Your task to perform on an android device: open sync settings in chrome Image 0: 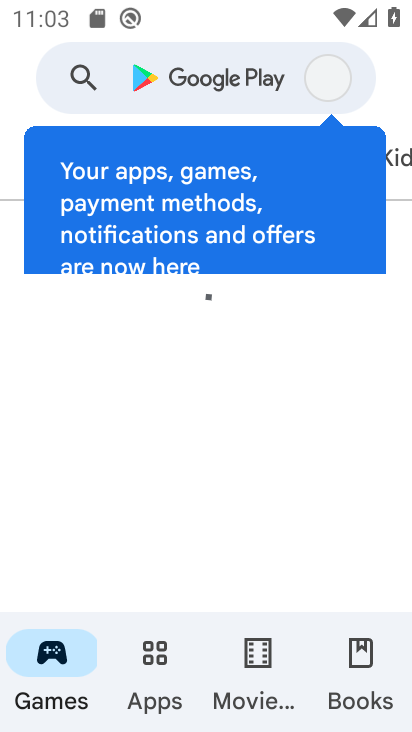
Step 0: press home button
Your task to perform on an android device: open sync settings in chrome Image 1: 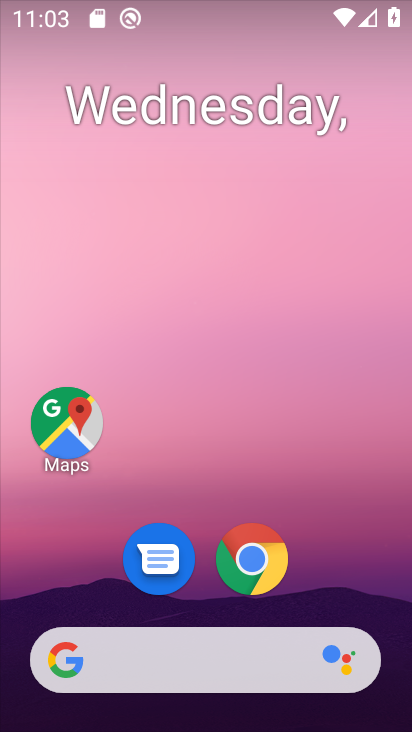
Step 1: drag from (275, 313) to (273, 76)
Your task to perform on an android device: open sync settings in chrome Image 2: 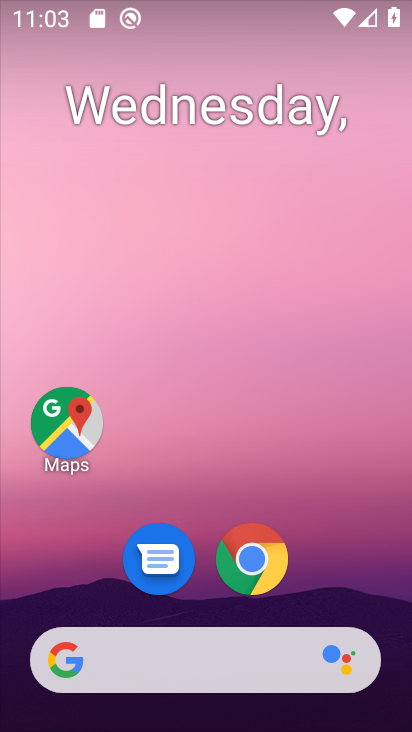
Step 2: drag from (236, 701) to (290, 4)
Your task to perform on an android device: open sync settings in chrome Image 3: 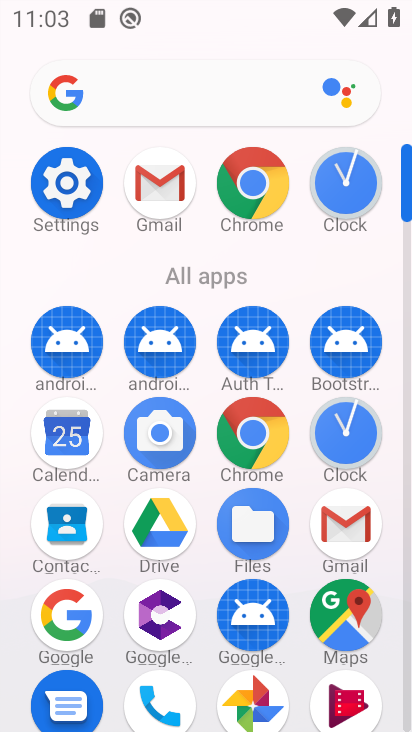
Step 3: click (244, 187)
Your task to perform on an android device: open sync settings in chrome Image 4: 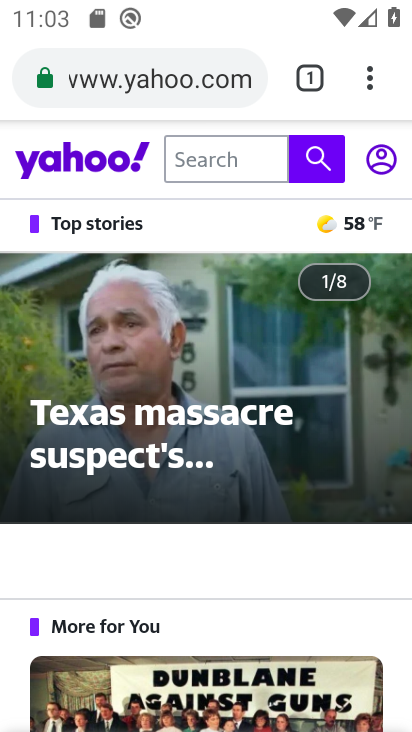
Step 4: click (361, 83)
Your task to perform on an android device: open sync settings in chrome Image 5: 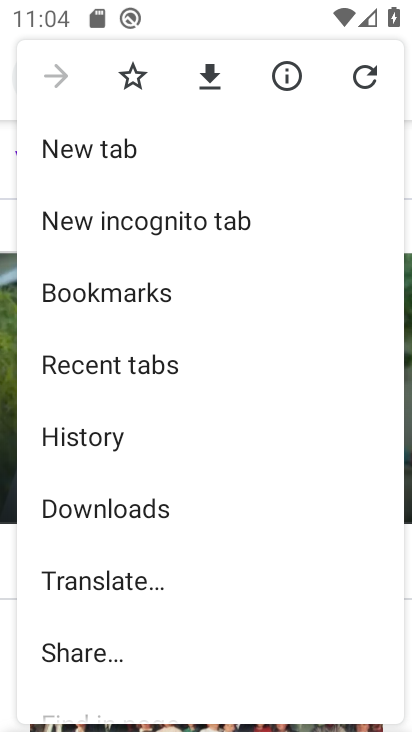
Step 5: drag from (116, 484) to (140, 160)
Your task to perform on an android device: open sync settings in chrome Image 6: 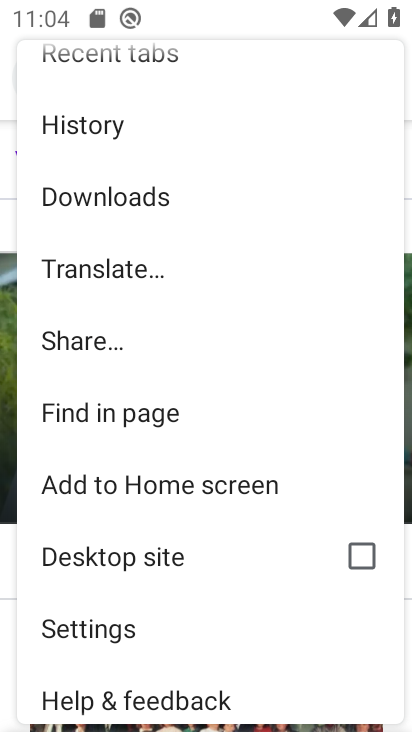
Step 6: click (120, 627)
Your task to perform on an android device: open sync settings in chrome Image 7: 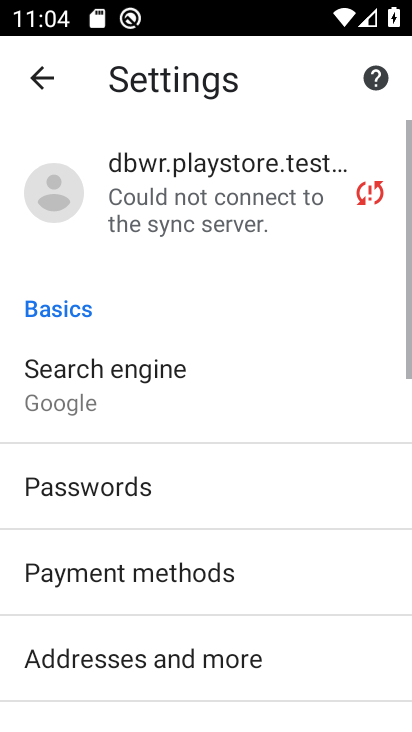
Step 7: drag from (134, 631) to (206, 261)
Your task to perform on an android device: open sync settings in chrome Image 8: 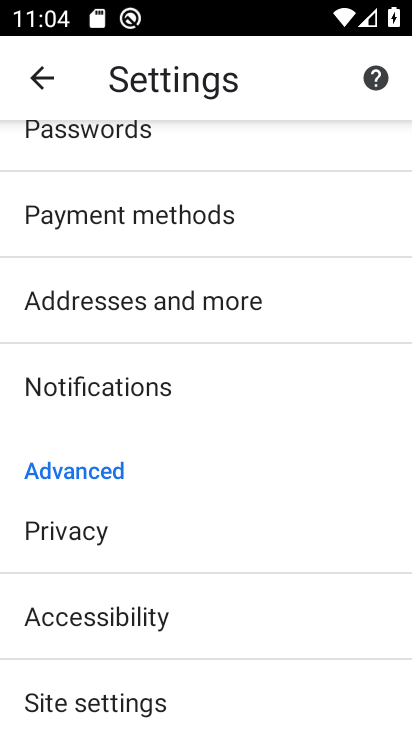
Step 8: click (117, 697)
Your task to perform on an android device: open sync settings in chrome Image 9: 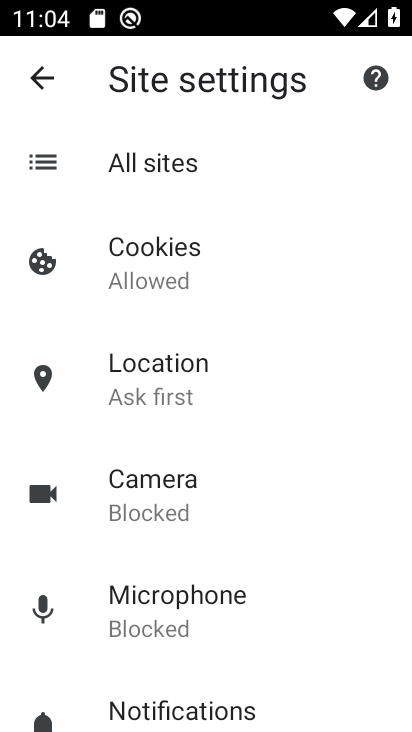
Step 9: drag from (163, 604) to (202, 264)
Your task to perform on an android device: open sync settings in chrome Image 10: 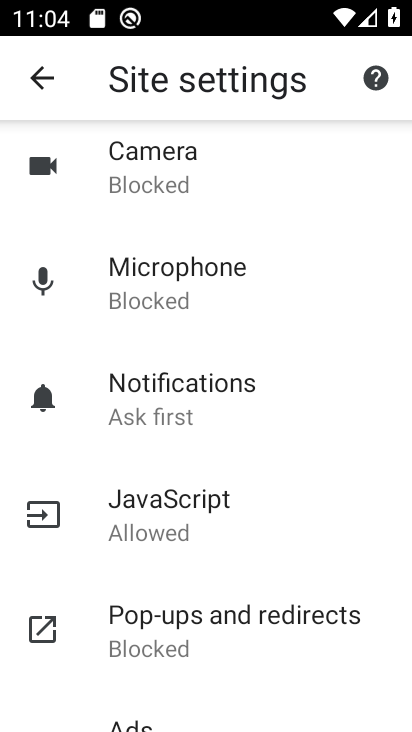
Step 10: drag from (218, 586) to (270, 357)
Your task to perform on an android device: open sync settings in chrome Image 11: 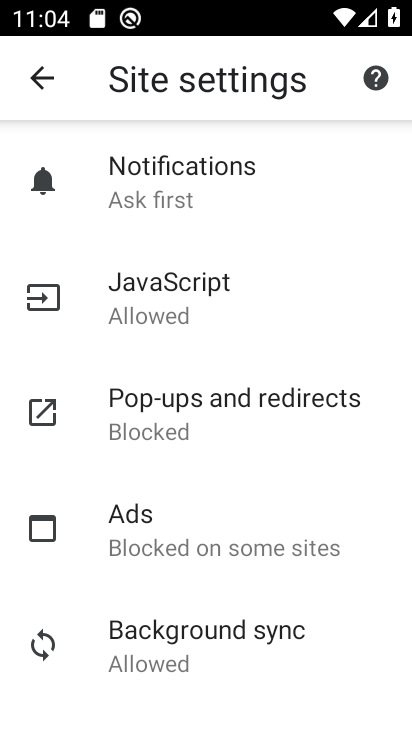
Step 11: click (192, 634)
Your task to perform on an android device: open sync settings in chrome Image 12: 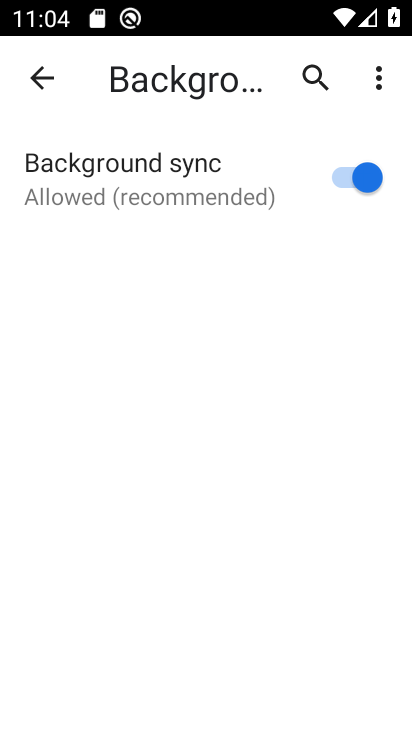
Step 12: task complete